Your task to perform on an android device: Open battery settings Image 0: 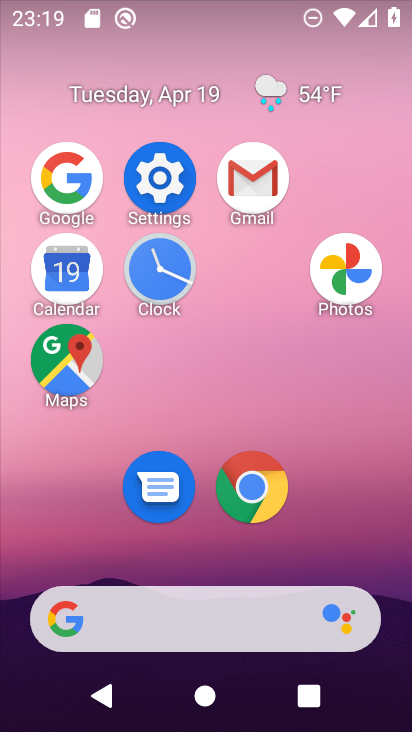
Step 0: click (156, 176)
Your task to perform on an android device: Open battery settings Image 1: 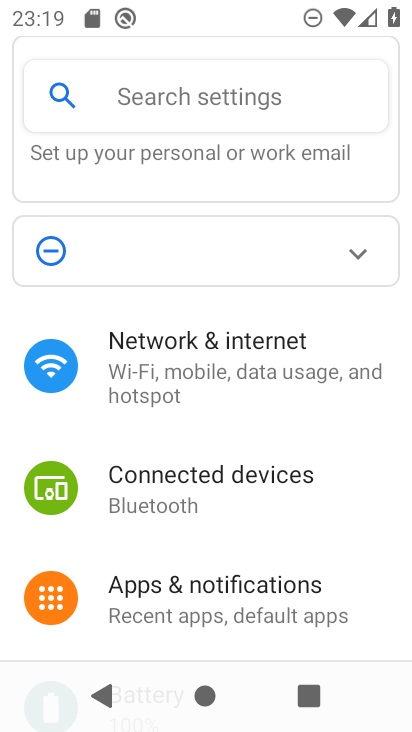
Step 1: drag from (268, 550) to (293, 81)
Your task to perform on an android device: Open battery settings Image 2: 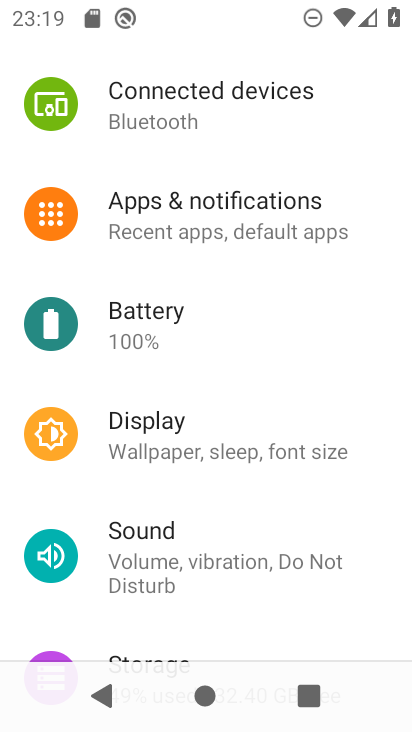
Step 2: click (203, 313)
Your task to perform on an android device: Open battery settings Image 3: 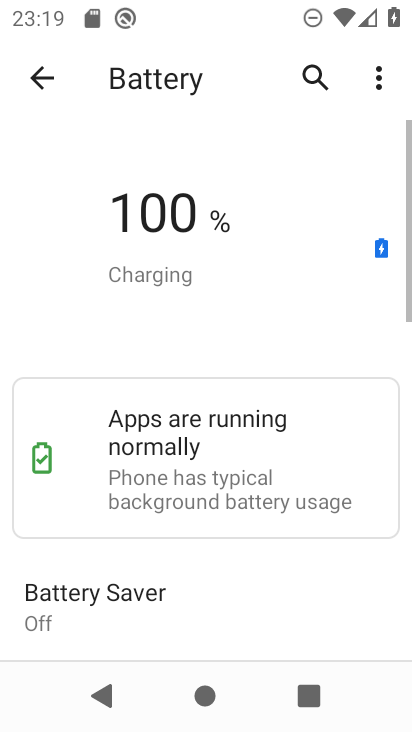
Step 3: task complete